Your task to perform on an android device: Go to Amazon Image 0: 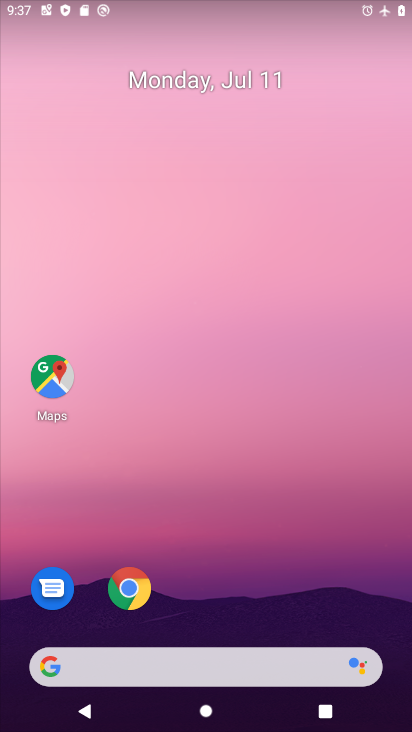
Step 0: click (130, 590)
Your task to perform on an android device: Go to Amazon Image 1: 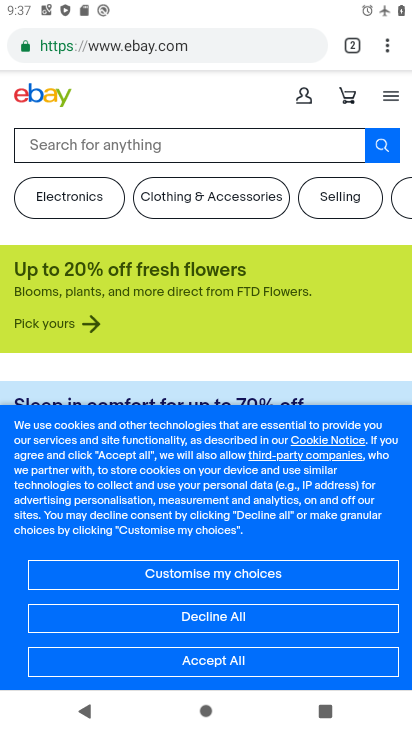
Step 1: click (350, 52)
Your task to perform on an android device: Go to Amazon Image 2: 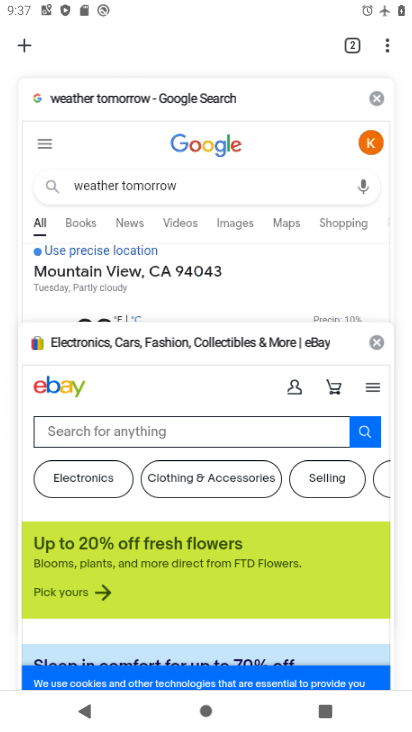
Step 2: click (25, 31)
Your task to perform on an android device: Go to Amazon Image 3: 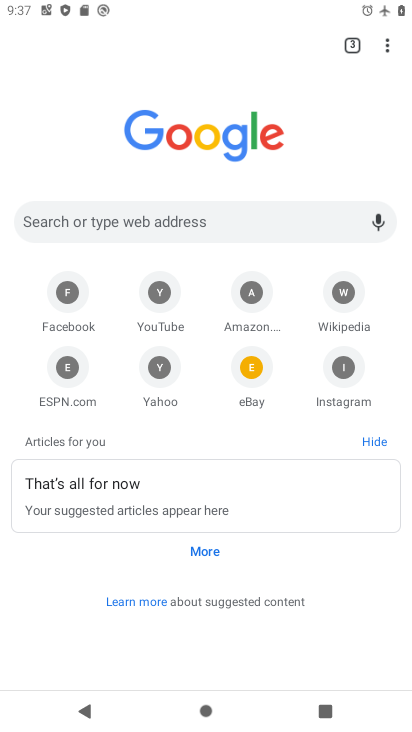
Step 3: click (252, 283)
Your task to perform on an android device: Go to Amazon Image 4: 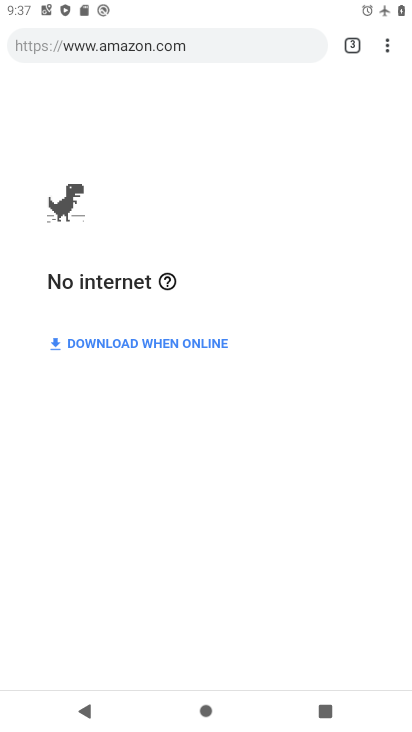
Step 4: drag from (382, 5) to (167, 600)
Your task to perform on an android device: Go to Amazon Image 5: 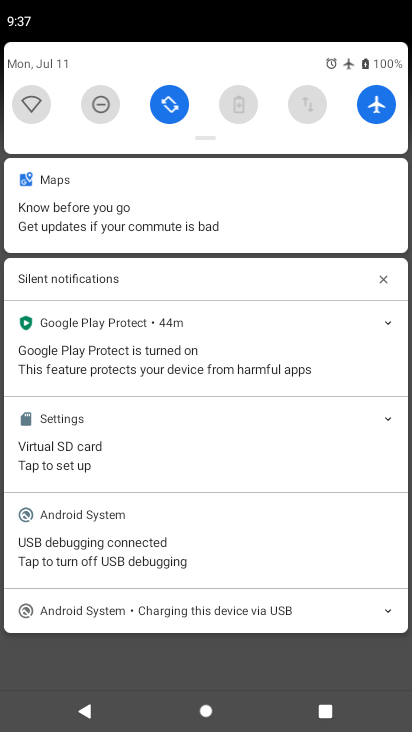
Step 5: click (374, 112)
Your task to perform on an android device: Go to Amazon Image 6: 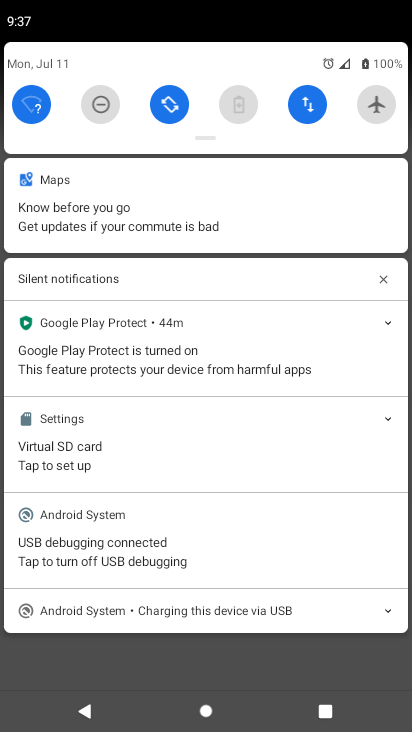
Step 6: click (49, 662)
Your task to perform on an android device: Go to Amazon Image 7: 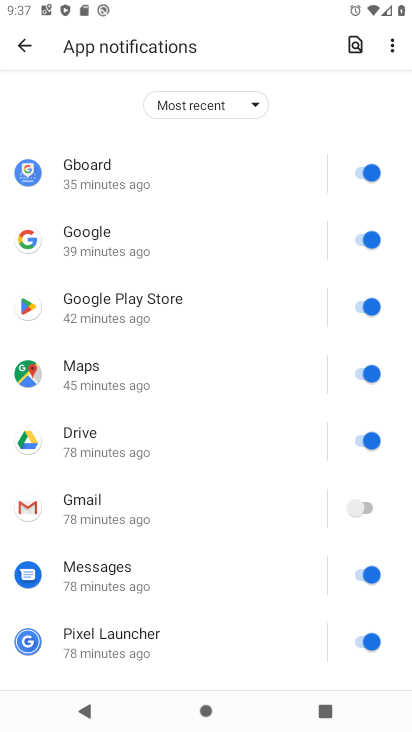
Step 7: click (23, 43)
Your task to perform on an android device: Go to Amazon Image 8: 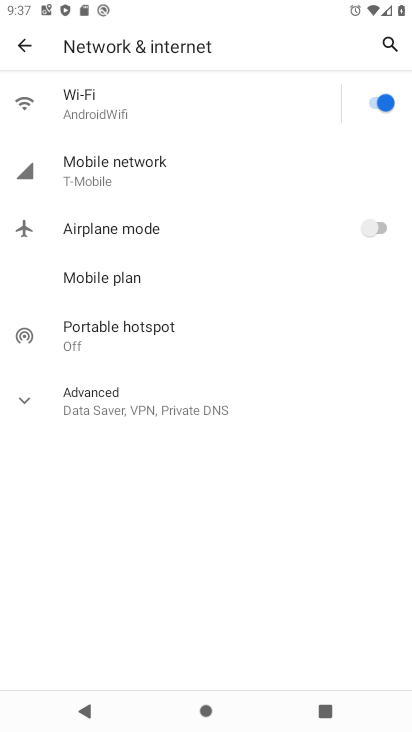
Step 8: click (23, 43)
Your task to perform on an android device: Go to Amazon Image 9: 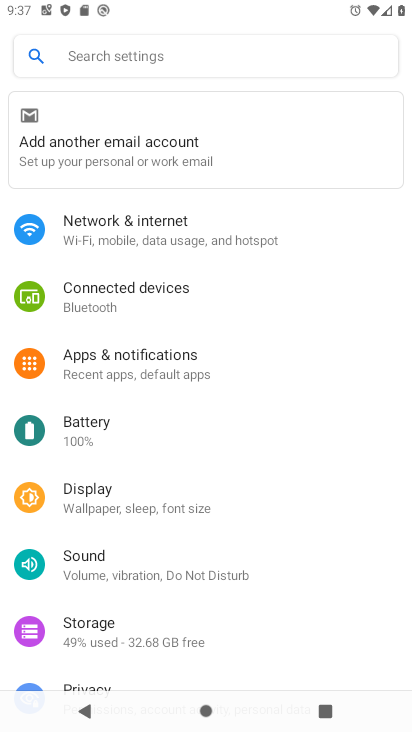
Step 9: click (32, 54)
Your task to perform on an android device: Go to Amazon Image 10: 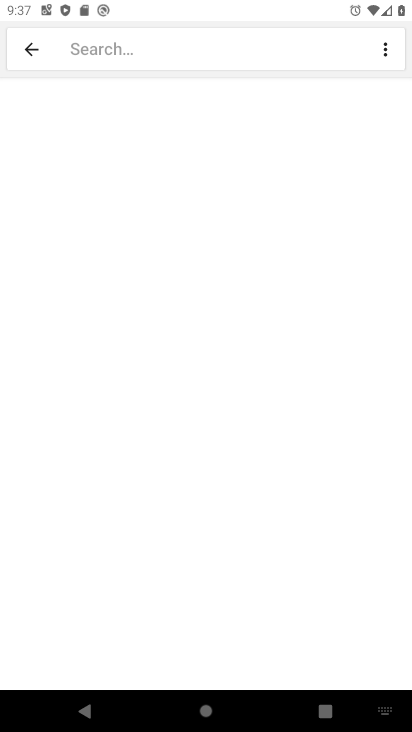
Step 10: press back button
Your task to perform on an android device: Go to Amazon Image 11: 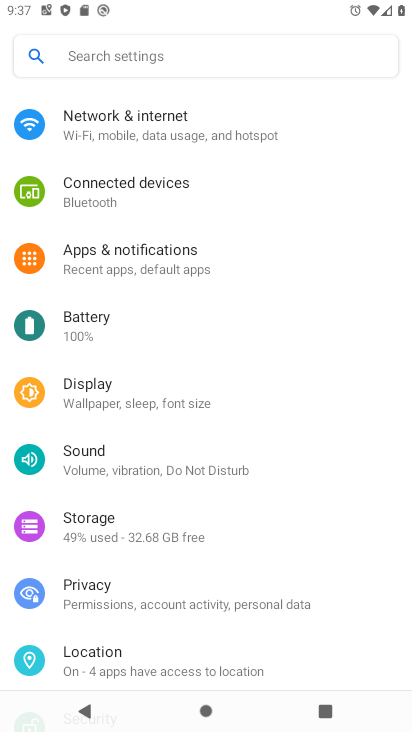
Step 11: press back button
Your task to perform on an android device: Go to Amazon Image 12: 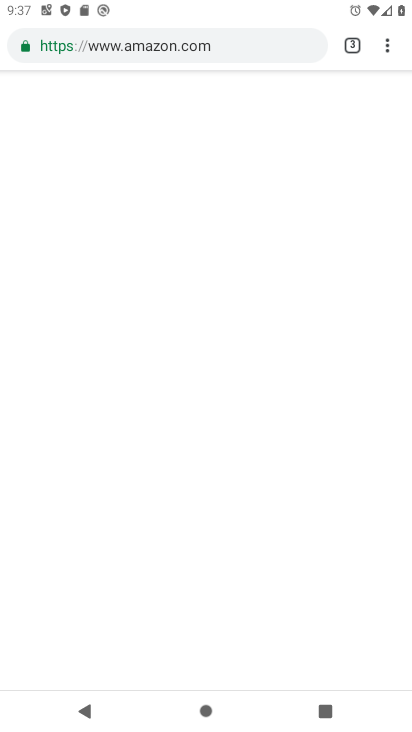
Step 12: press back button
Your task to perform on an android device: Go to Amazon Image 13: 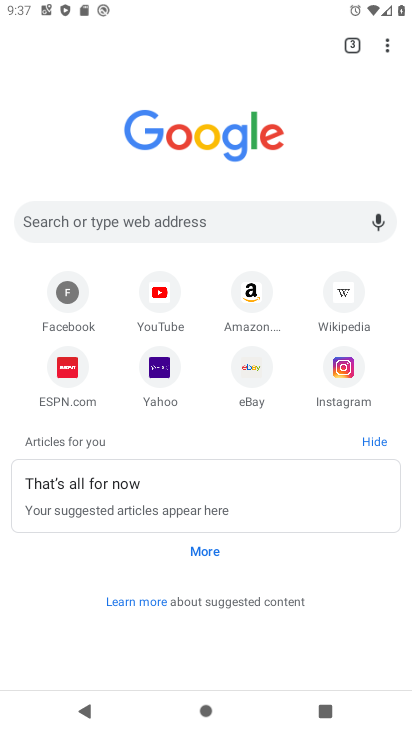
Step 13: click (257, 294)
Your task to perform on an android device: Go to Amazon Image 14: 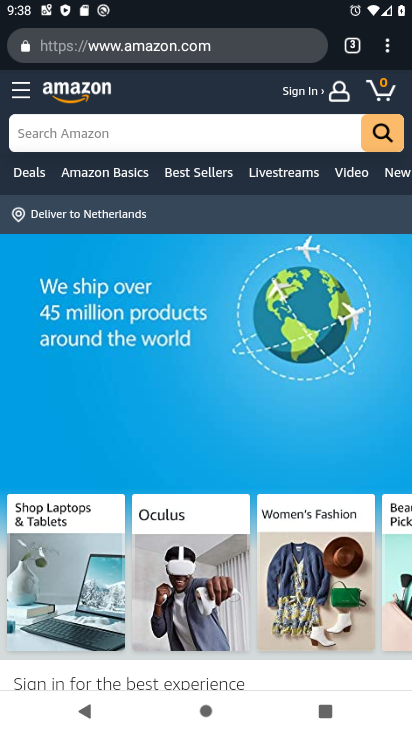
Step 14: task complete